Your task to perform on an android device: Toggle the flashlight Image 0: 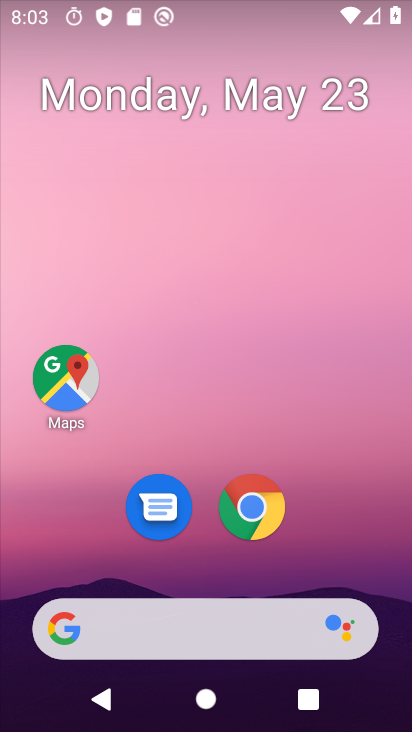
Step 0: drag from (330, 545) to (329, 0)
Your task to perform on an android device: Toggle the flashlight Image 1: 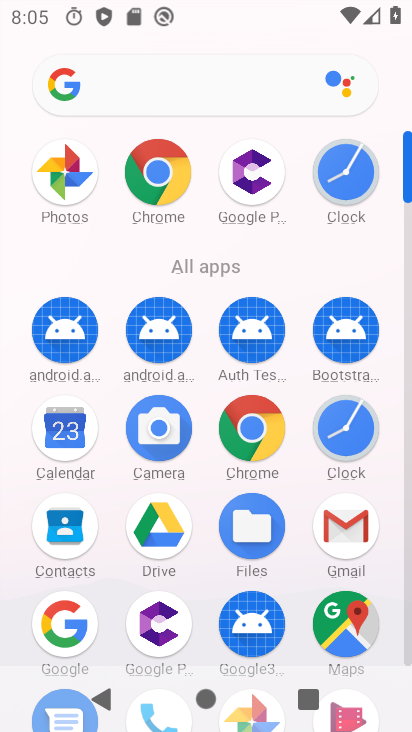
Step 1: drag from (381, 496) to (409, 140)
Your task to perform on an android device: Toggle the flashlight Image 2: 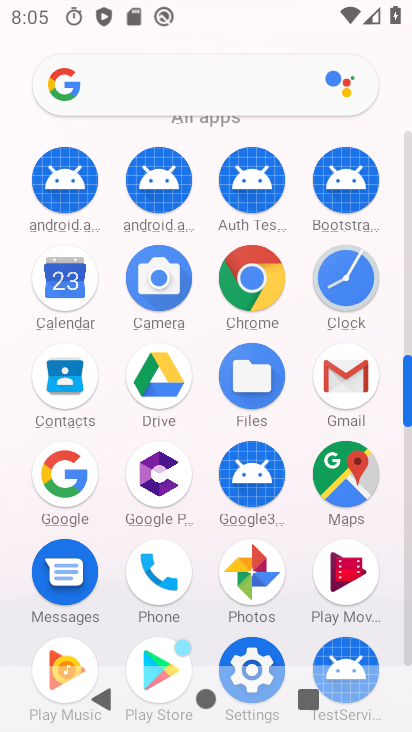
Step 2: click (256, 648)
Your task to perform on an android device: Toggle the flashlight Image 3: 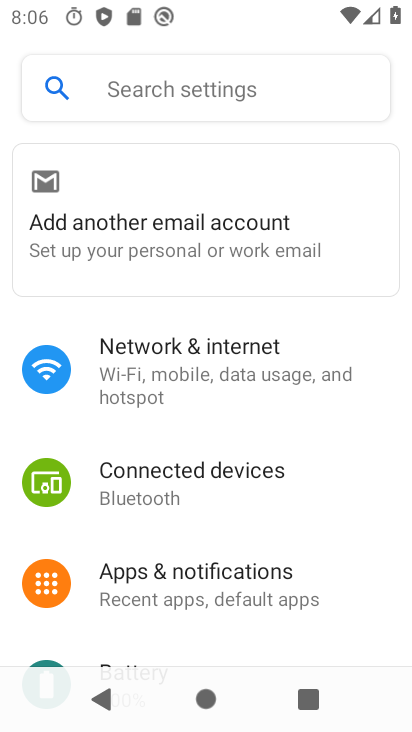
Step 3: task complete